Your task to perform on an android device: See recent photos Image 0: 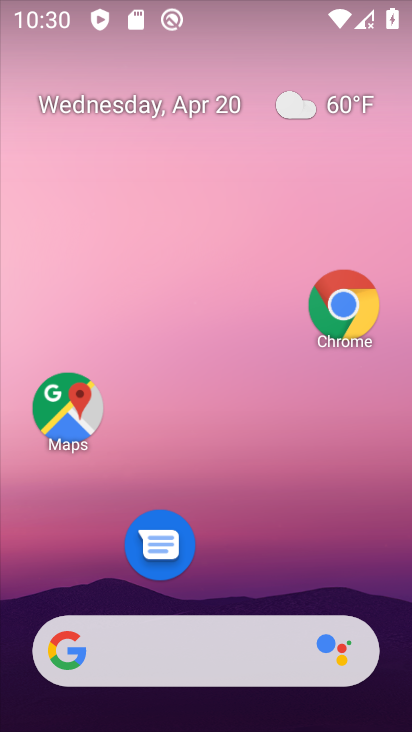
Step 0: drag from (263, 601) to (308, 315)
Your task to perform on an android device: See recent photos Image 1: 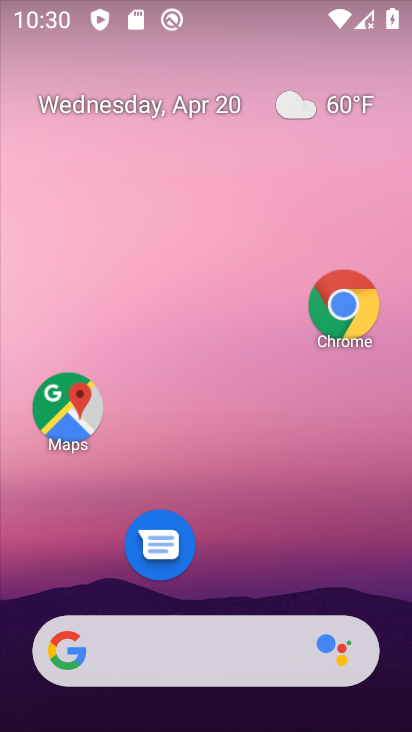
Step 1: drag from (249, 531) to (277, 254)
Your task to perform on an android device: See recent photos Image 2: 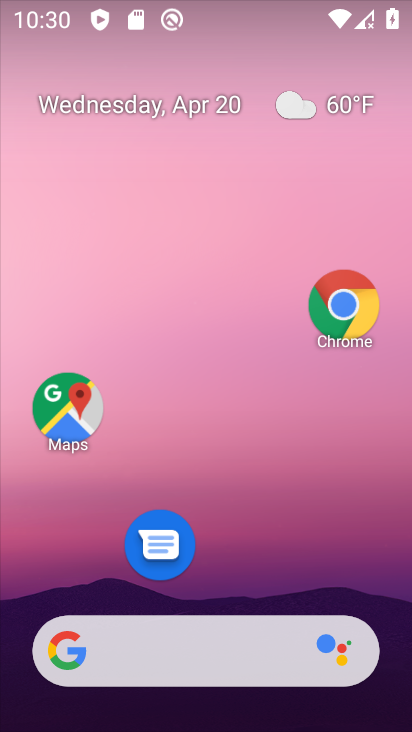
Step 2: drag from (245, 530) to (312, 61)
Your task to perform on an android device: See recent photos Image 3: 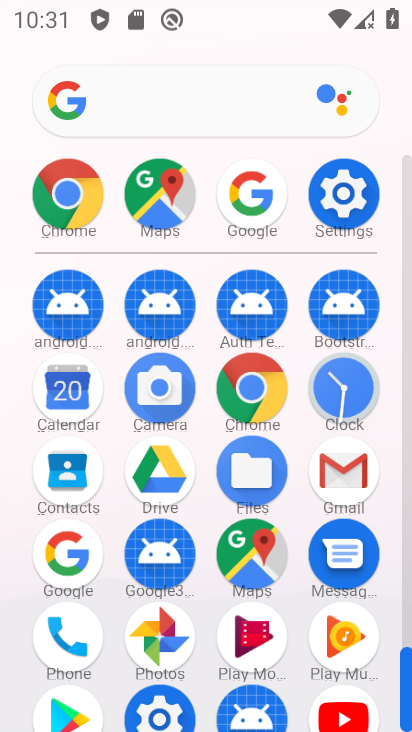
Step 3: click (171, 654)
Your task to perform on an android device: See recent photos Image 4: 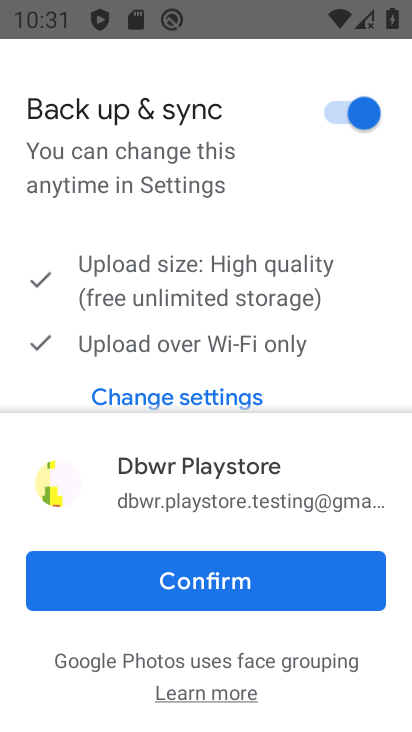
Step 4: click (233, 577)
Your task to perform on an android device: See recent photos Image 5: 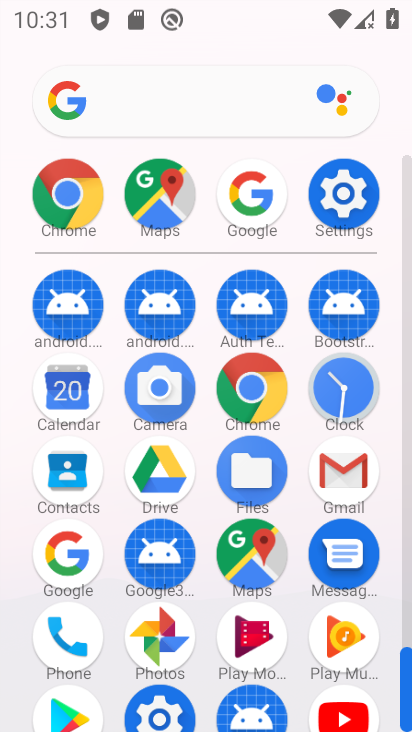
Step 5: click (169, 636)
Your task to perform on an android device: See recent photos Image 6: 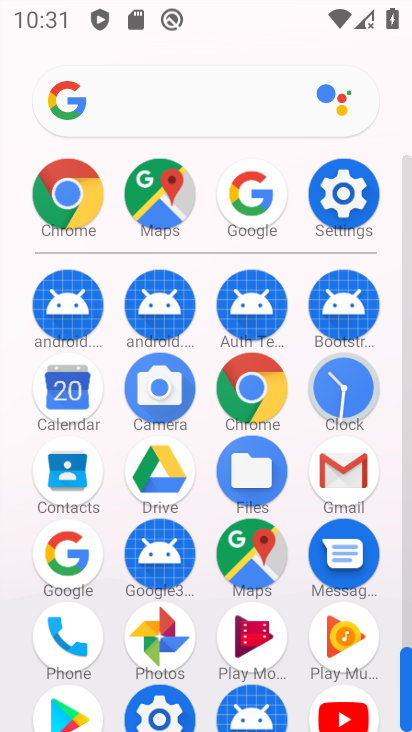
Step 6: click (169, 636)
Your task to perform on an android device: See recent photos Image 7: 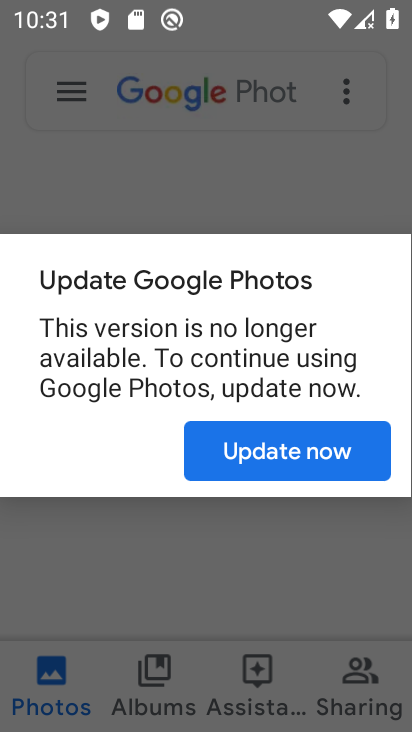
Step 7: task complete